Your task to perform on an android device: Go to Android settings Image 0: 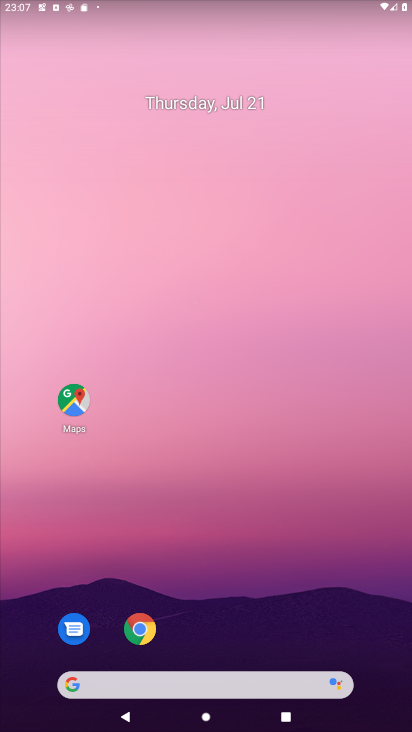
Step 0: drag from (223, 583) to (262, 127)
Your task to perform on an android device: Go to Android settings Image 1: 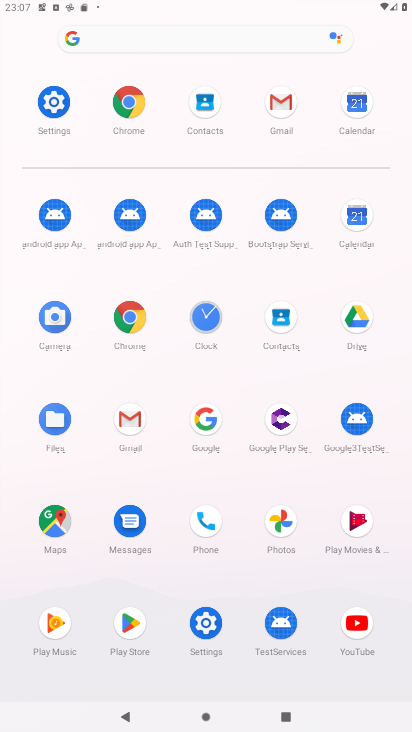
Step 1: click (210, 631)
Your task to perform on an android device: Go to Android settings Image 2: 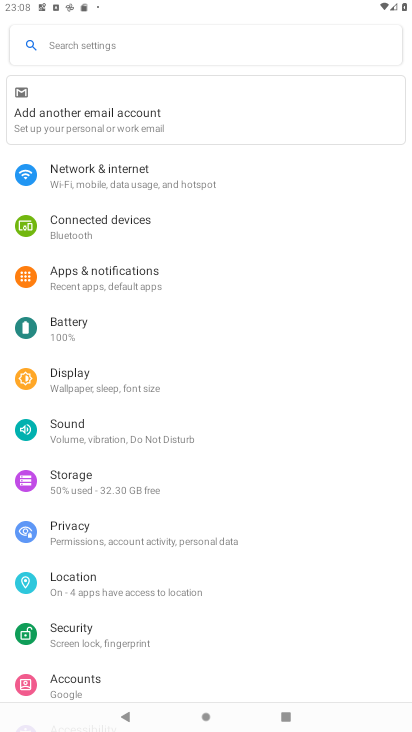
Step 2: task complete